Your task to perform on an android device: set an alarm Image 0: 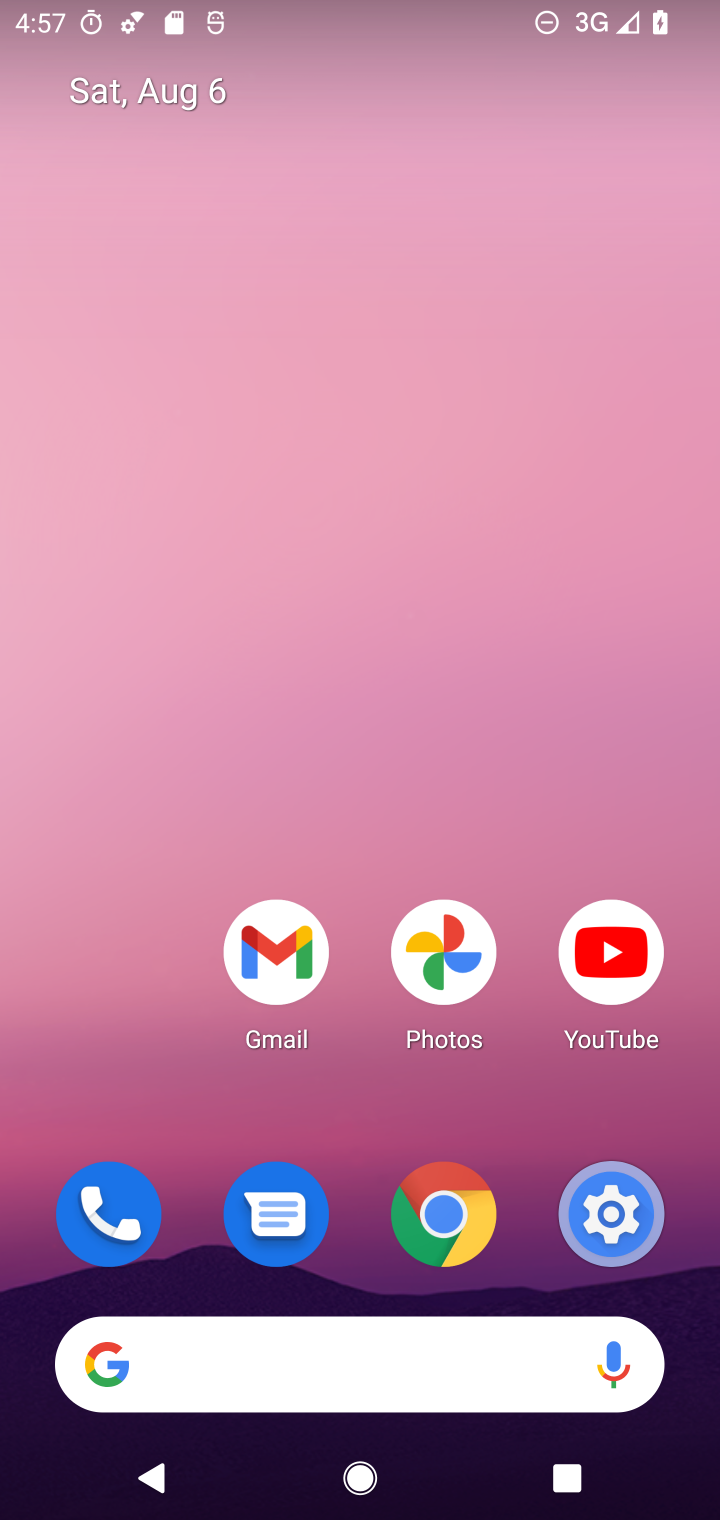
Step 0: drag from (107, 237) to (356, 112)
Your task to perform on an android device: set an alarm Image 1: 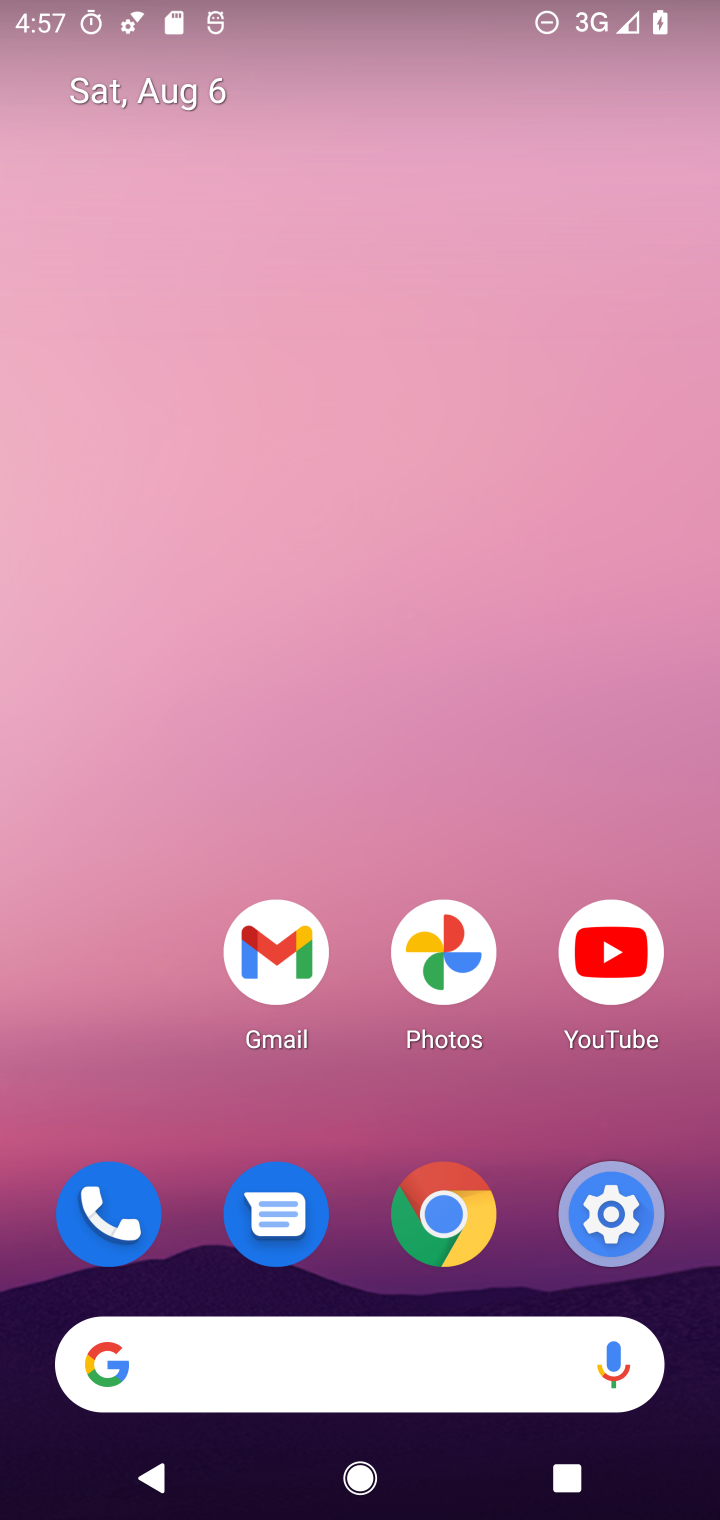
Step 1: drag from (331, 899) to (319, 355)
Your task to perform on an android device: set an alarm Image 2: 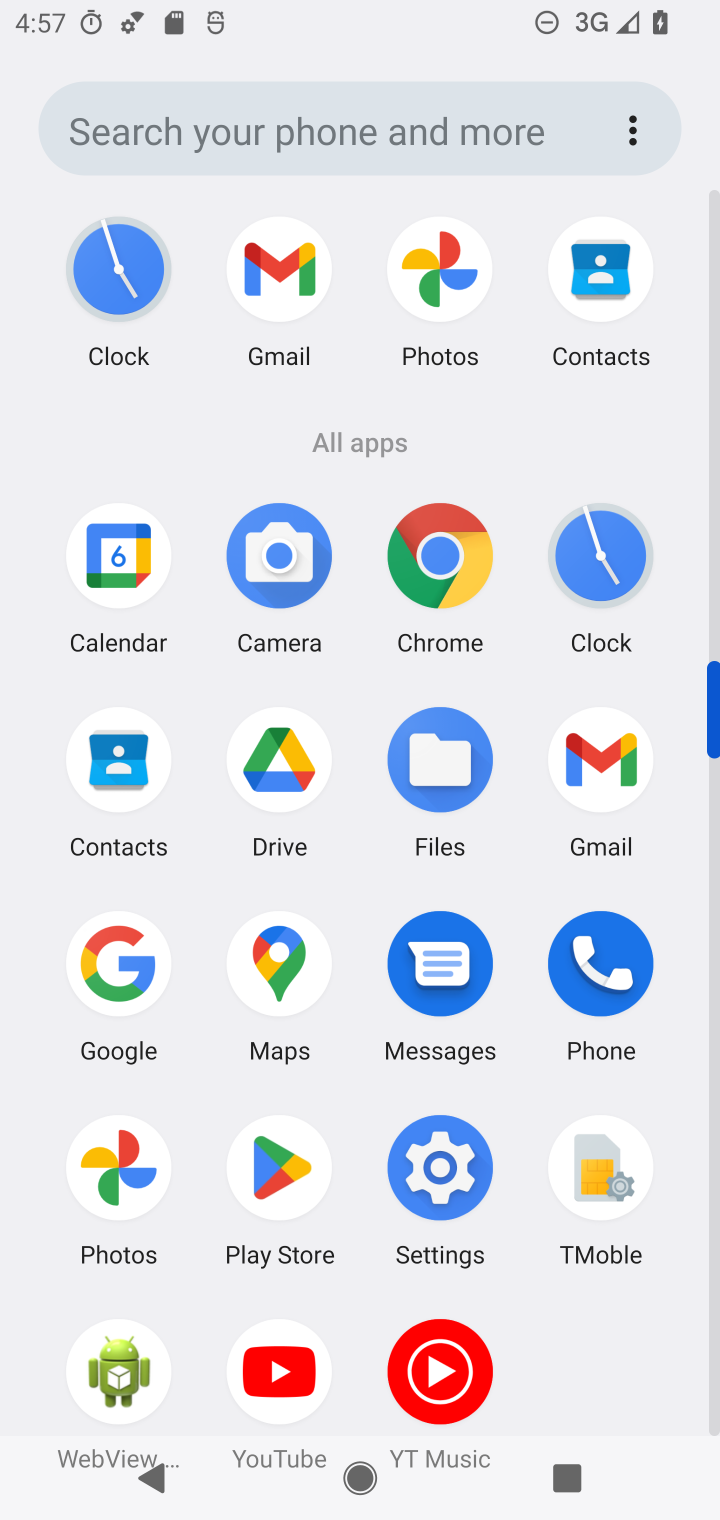
Step 2: click (591, 577)
Your task to perform on an android device: set an alarm Image 3: 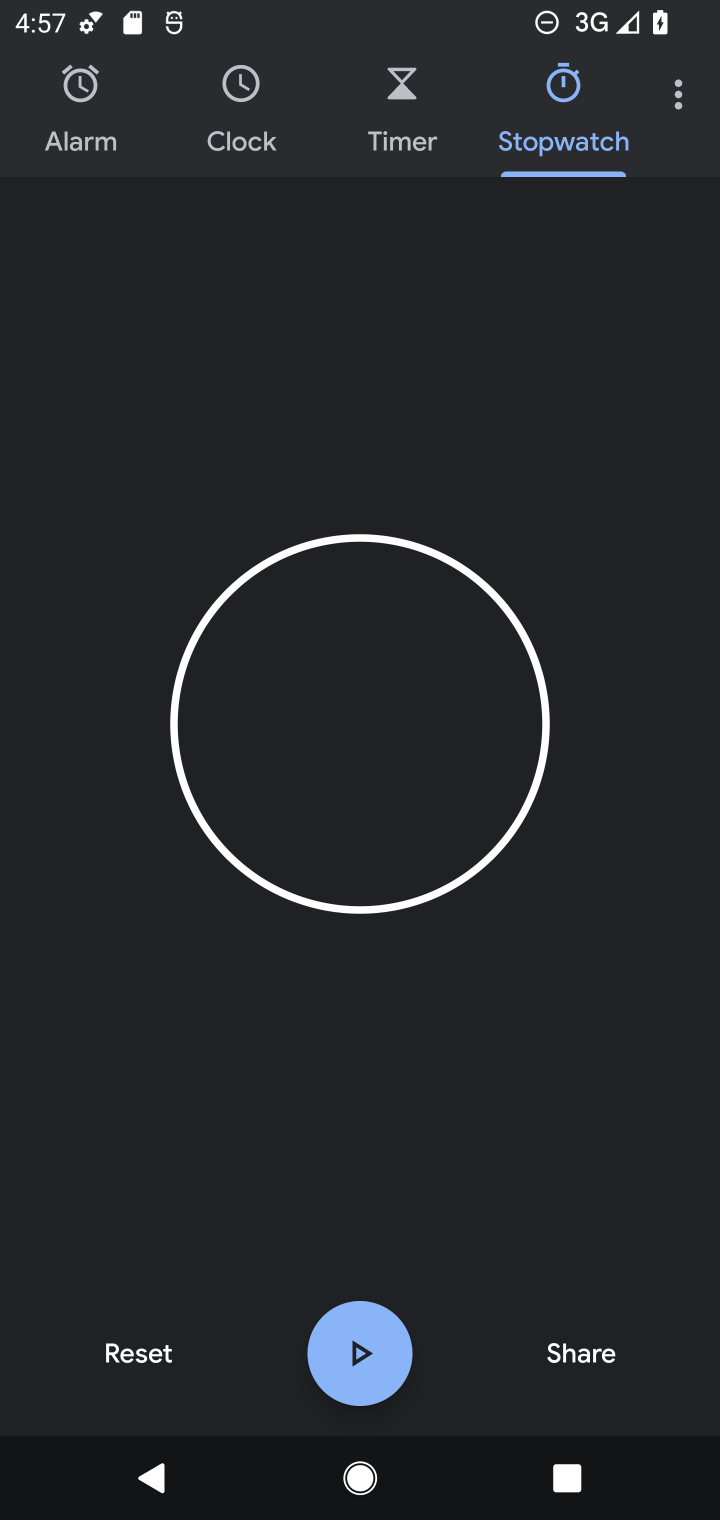
Step 3: click (67, 127)
Your task to perform on an android device: set an alarm Image 4: 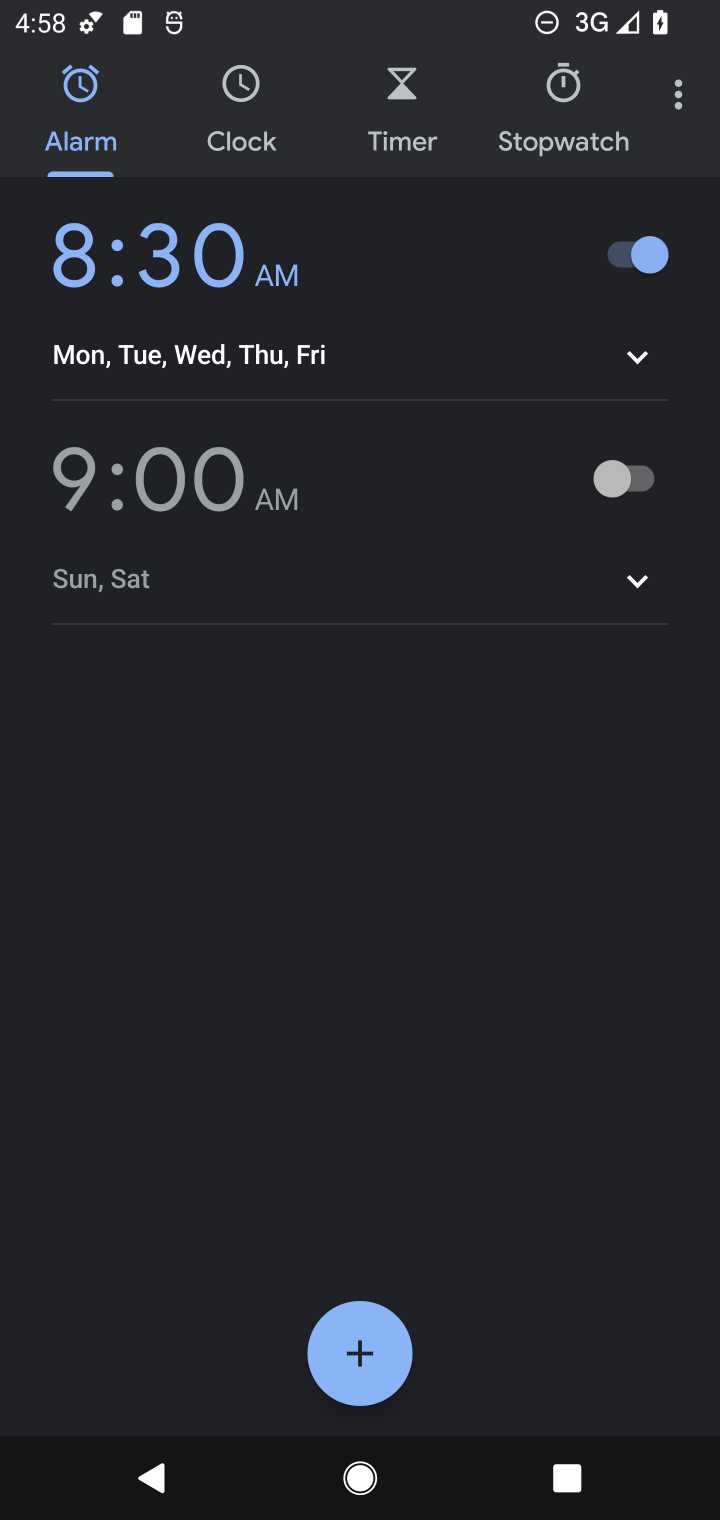
Step 4: click (637, 478)
Your task to perform on an android device: set an alarm Image 5: 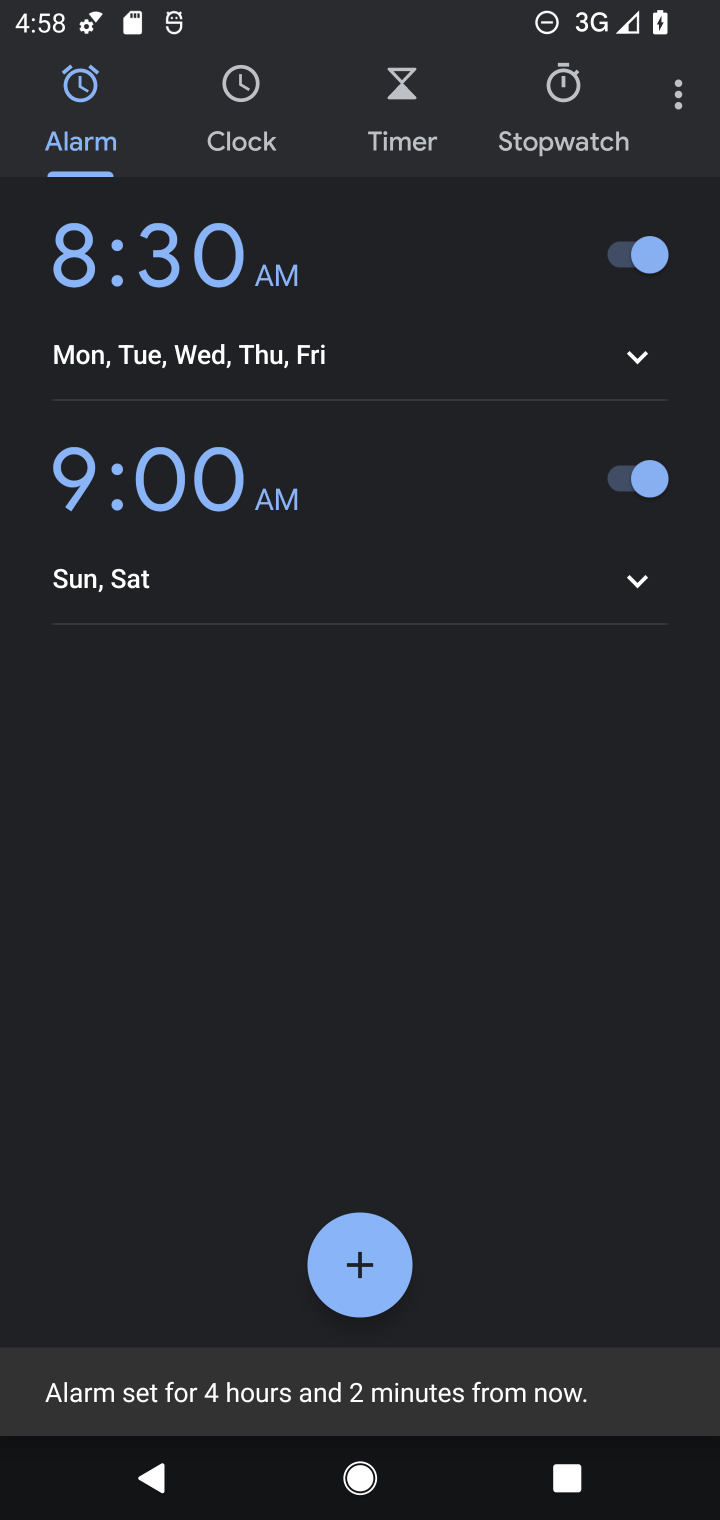
Step 5: task complete